Your task to perform on an android device: toggle pop-ups in chrome Image 0: 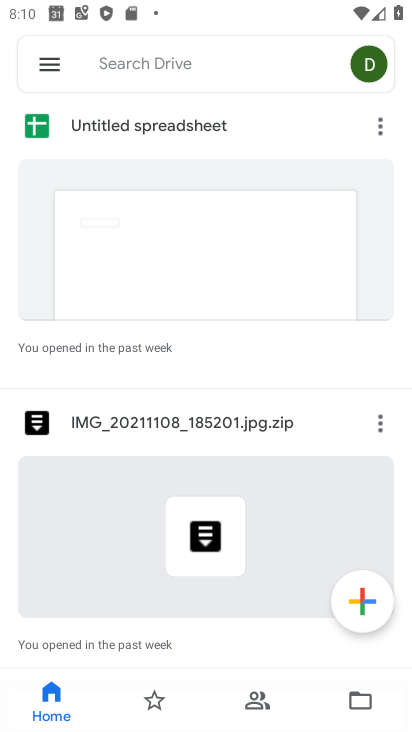
Step 0: press home button
Your task to perform on an android device: toggle pop-ups in chrome Image 1: 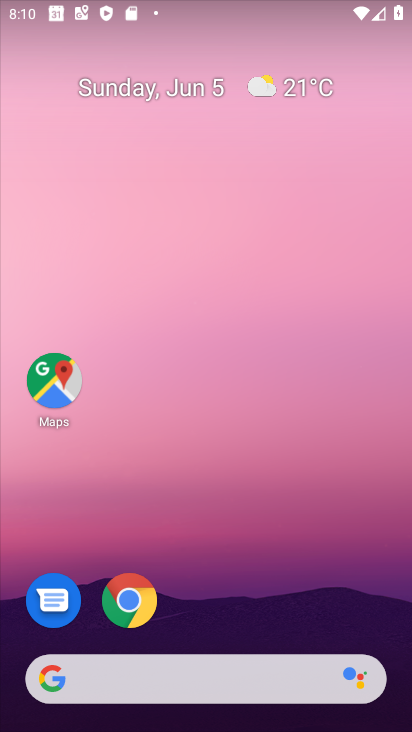
Step 1: click (126, 591)
Your task to perform on an android device: toggle pop-ups in chrome Image 2: 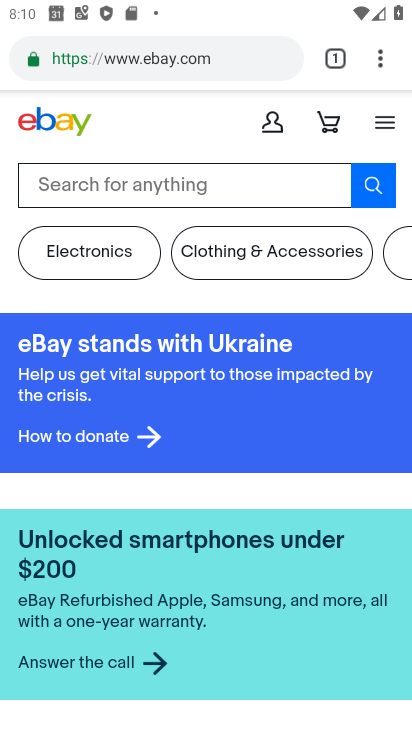
Step 2: click (382, 53)
Your task to perform on an android device: toggle pop-ups in chrome Image 3: 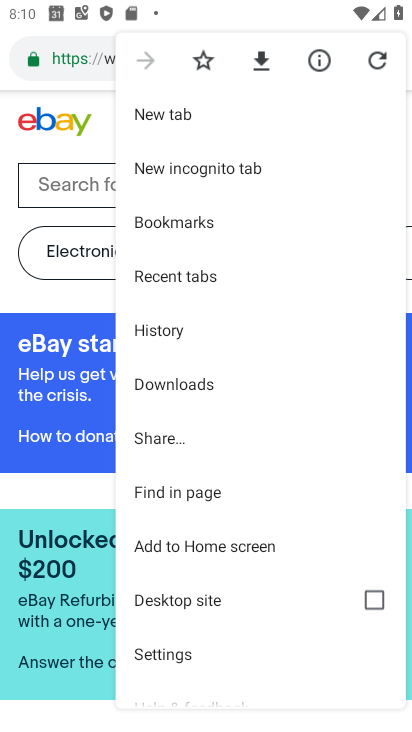
Step 3: click (151, 644)
Your task to perform on an android device: toggle pop-ups in chrome Image 4: 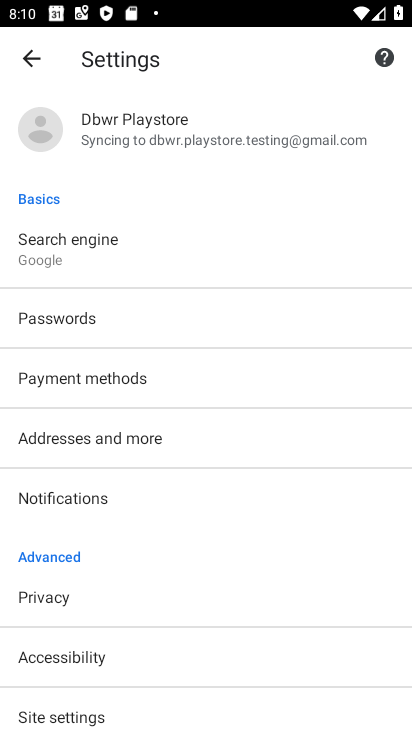
Step 4: click (76, 715)
Your task to perform on an android device: toggle pop-ups in chrome Image 5: 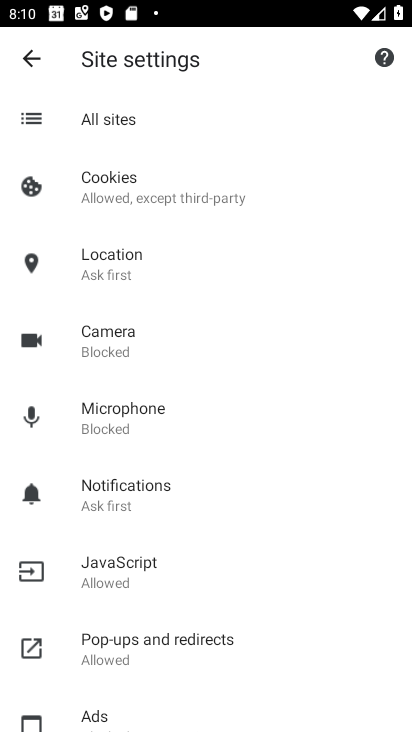
Step 5: click (118, 654)
Your task to perform on an android device: toggle pop-ups in chrome Image 6: 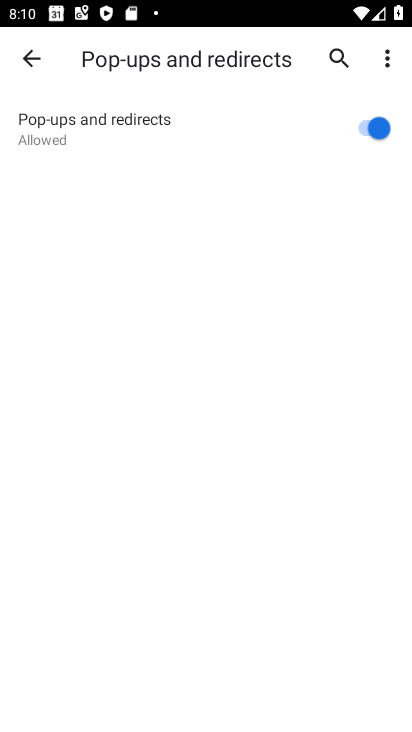
Step 6: click (375, 126)
Your task to perform on an android device: toggle pop-ups in chrome Image 7: 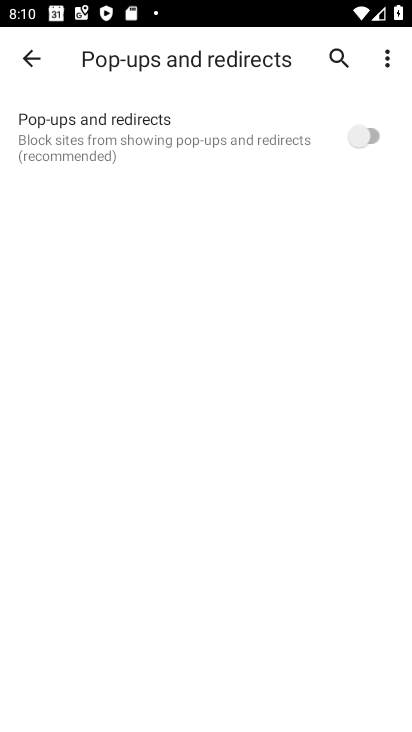
Step 7: task complete